Your task to perform on an android device: Go to notification settings Image 0: 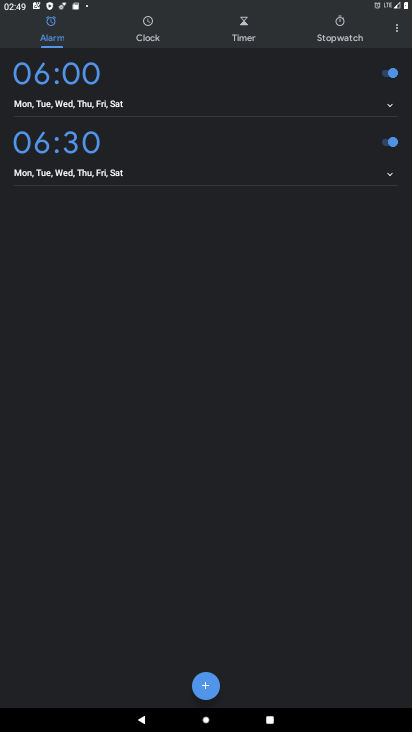
Step 0: press home button
Your task to perform on an android device: Go to notification settings Image 1: 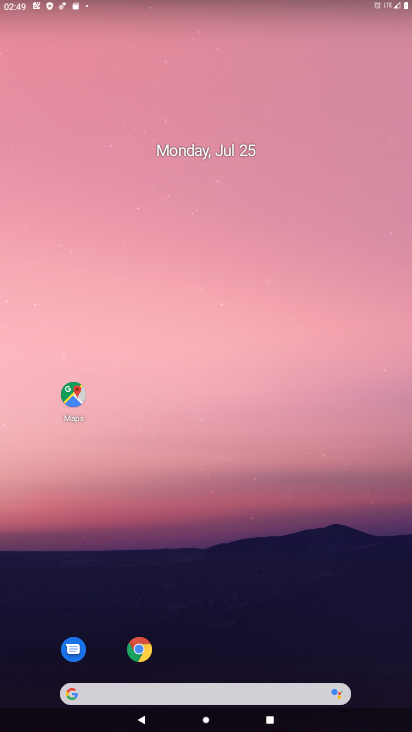
Step 1: drag from (381, 688) to (325, 211)
Your task to perform on an android device: Go to notification settings Image 2: 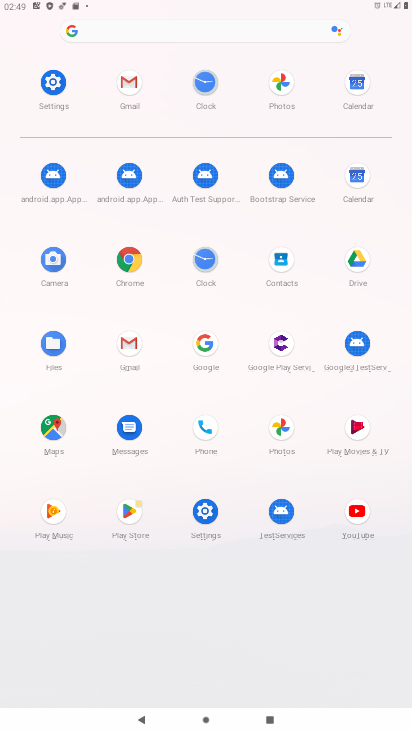
Step 2: click (203, 513)
Your task to perform on an android device: Go to notification settings Image 3: 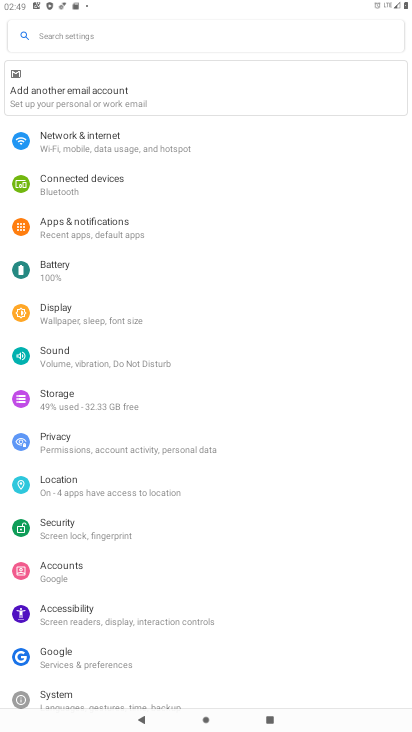
Step 3: click (67, 218)
Your task to perform on an android device: Go to notification settings Image 4: 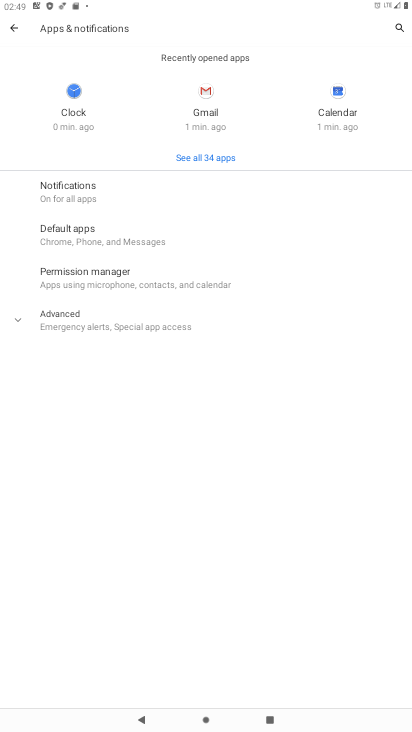
Step 4: click (59, 180)
Your task to perform on an android device: Go to notification settings Image 5: 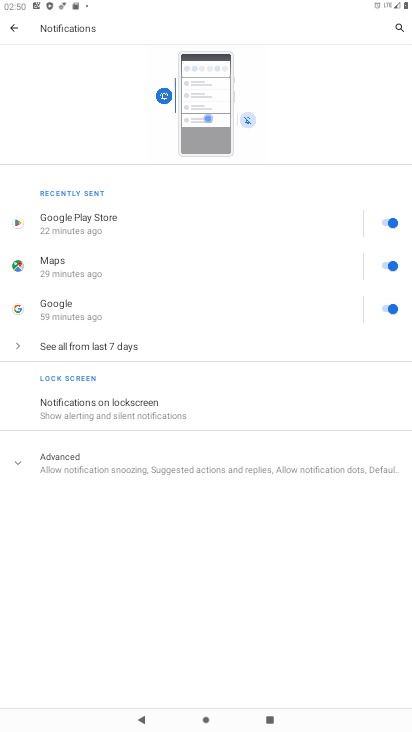
Step 5: click (25, 460)
Your task to perform on an android device: Go to notification settings Image 6: 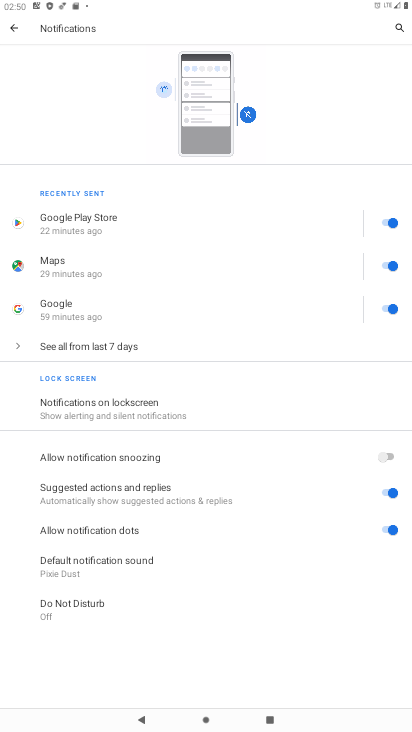
Step 6: task complete